Your task to perform on an android device: Show me popular games on the Play Store Image 0: 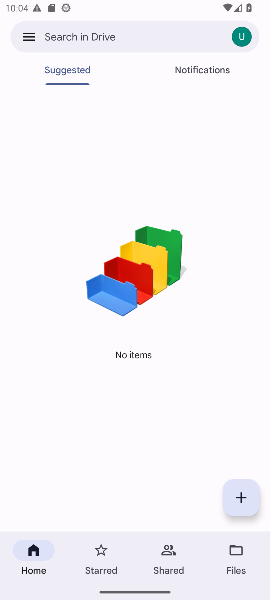
Step 0: press home button
Your task to perform on an android device: Show me popular games on the Play Store Image 1: 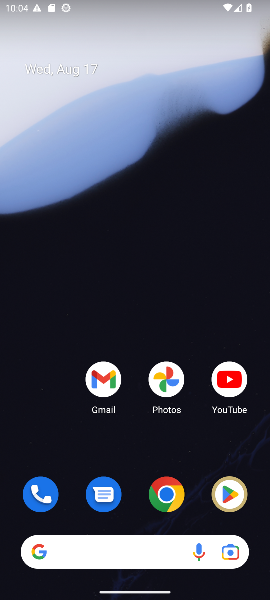
Step 1: drag from (195, 472) to (220, 1)
Your task to perform on an android device: Show me popular games on the Play Store Image 2: 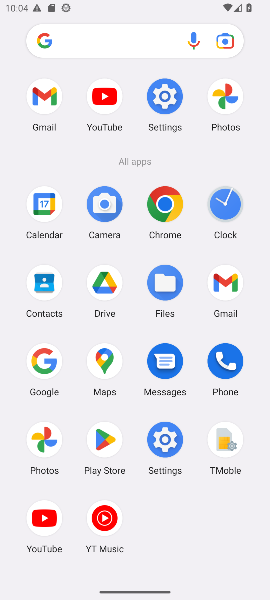
Step 2: click (38, 514)
Your task to perform on an android device: Show me popular games on the Play Store Image 3: 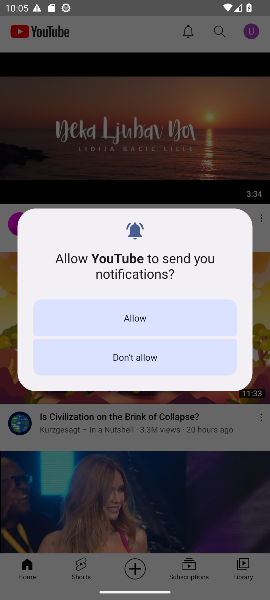
Step 3: click (87, 320)
Your task to perform on an android device: Show me popular games on the Play Store Image 4: 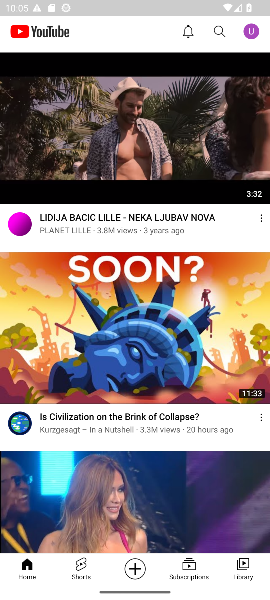
Step 4: click (218, 31)
Your task to perform on an android device: Show me popular games on the Play Store Image 5: 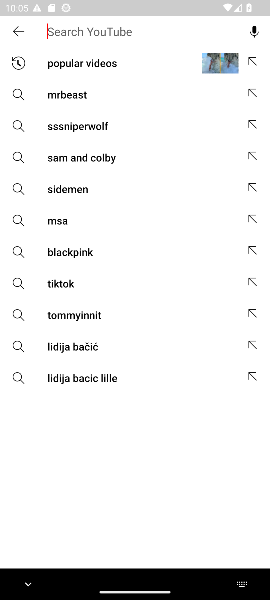
Step 5: type " popular games"
Your task to perform on an android device: Show me popular games on the Play Store Image 6: 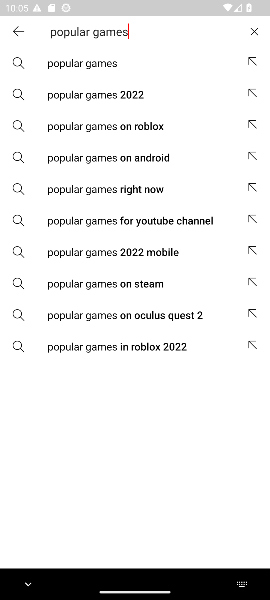
Step 6: click (92, 63)
Your task to perform on an android device: Show me popular games on the Play Store Image 7: 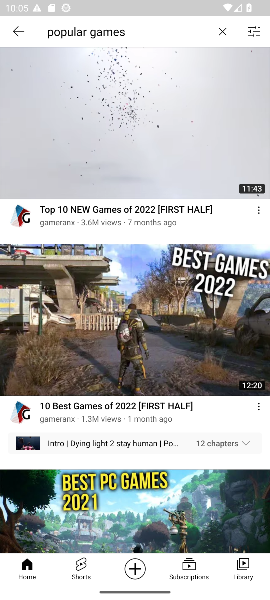
Step 7: task complete